Your task to perform on an android device: Open the calendar app, open the side menu, and click the "Day" option Image 0: 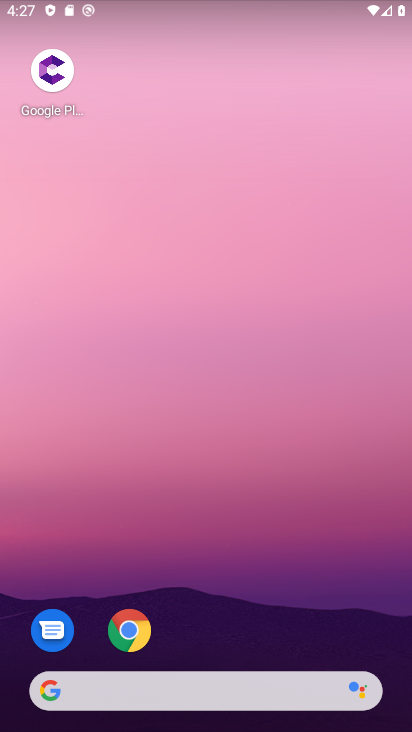
Step 0: drag from (228, 664) to (225, 213)
Your task to perform on an android device: Open the calendar app, open the side menu, and click the "Day" option Image 1: 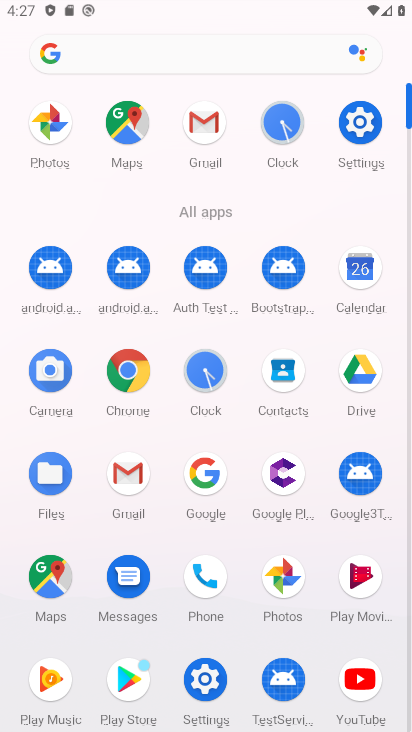
Step 1: click (364, 273)
Your task to perform on an android device: Open the calendar app, open the side menu, and click the "Day" option Image 2: 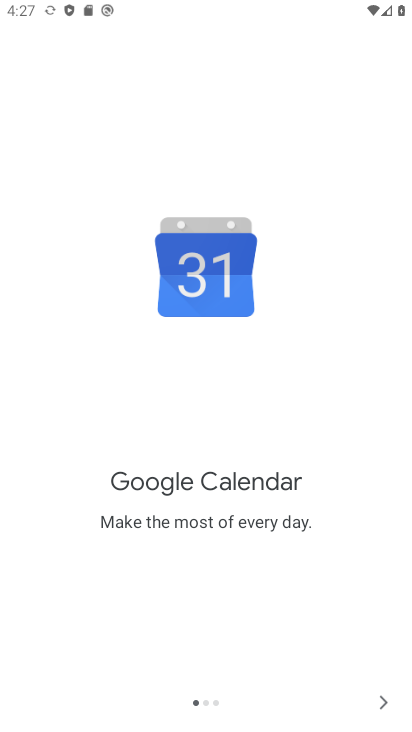
Step 2: click (388, 707)
Your task to perform on an android device: Open the calendar app, open the side menu, and click the "Day" option Image 3: 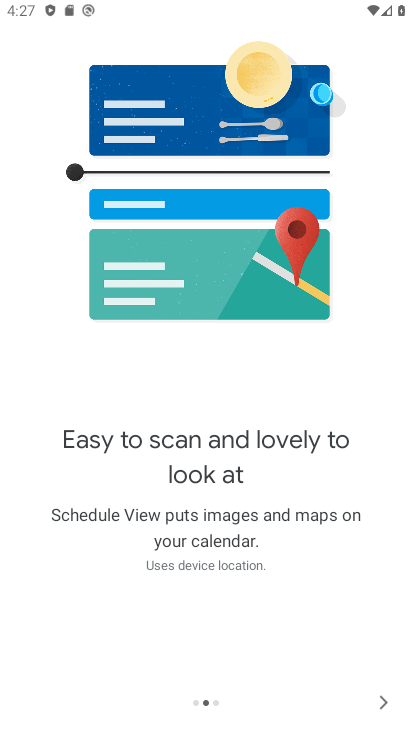
Step 3: click (388, 707)
Your task to perform on an android device: Open the calendar app, open the side menu, and click the "Day" option Image 4: 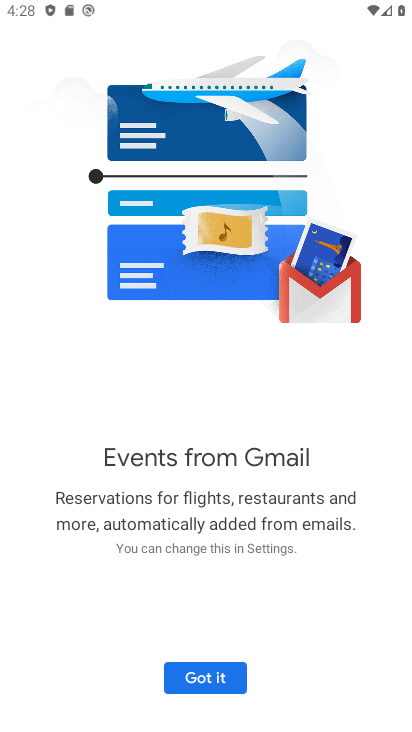
Step 4: click (204, 677)
Your task to perform on an android device: Open the calendar app, open the side menu, and click the "Day" option Image 5: 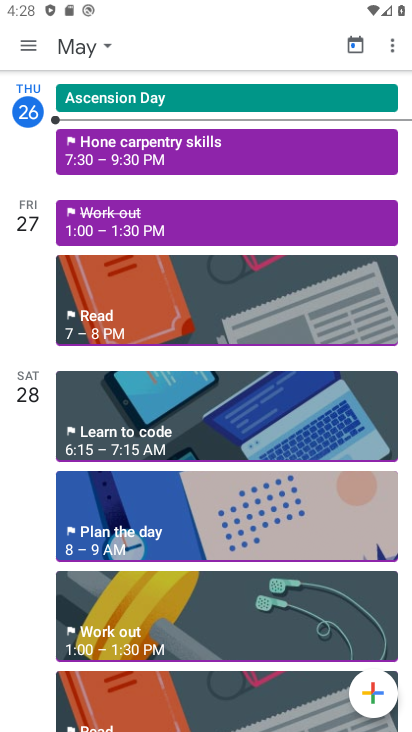
Step 5: click (31, 45)
Your task to perform on an android device: Open the calendar app, open the side menu, and click the "Day" option Image 6: 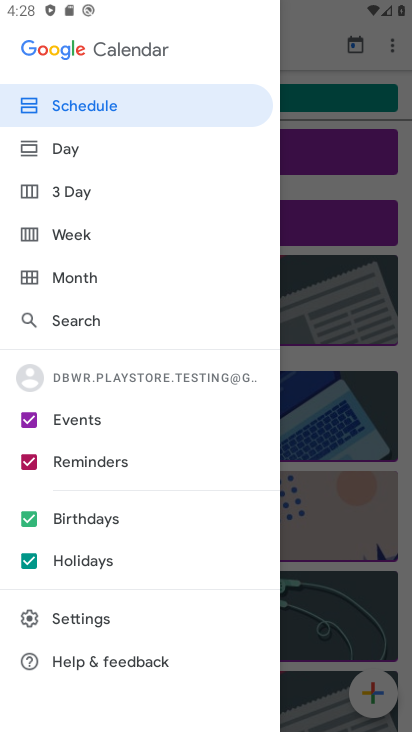
Step 6: click (75, 146)
Your task to perform on an android device: Open the calendar app, open the side menu, and click the "Day" option Image 7: 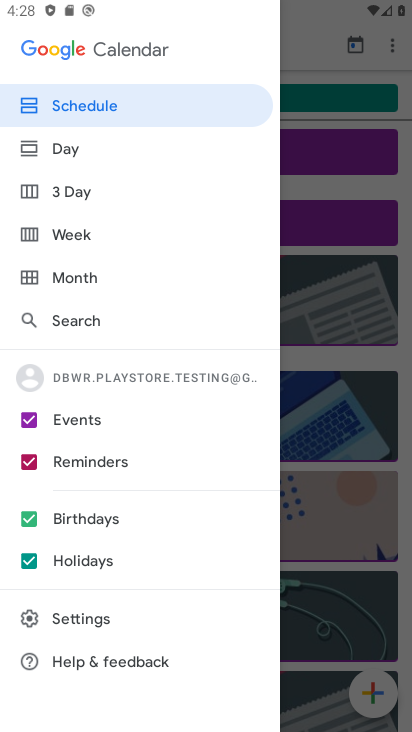
Step 7: click (85, 156)
Your task to perform on an android device: Open the calendar app, open the side menu, and click the "Day" option Image 8: 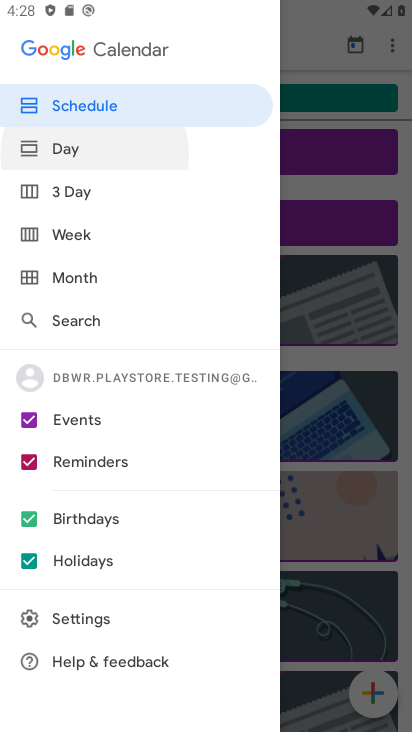
Step 8: click (85, 156)
Your task to perform on an android device: Open the calendar app, open the side menu, and click the "Day" option Image 9: 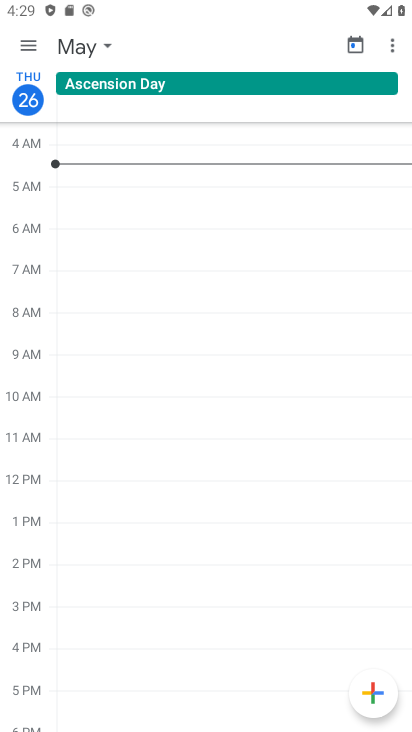
Step 9: task complete